Your task to perform on an android device: open a new tab in the chrome app Image 0: 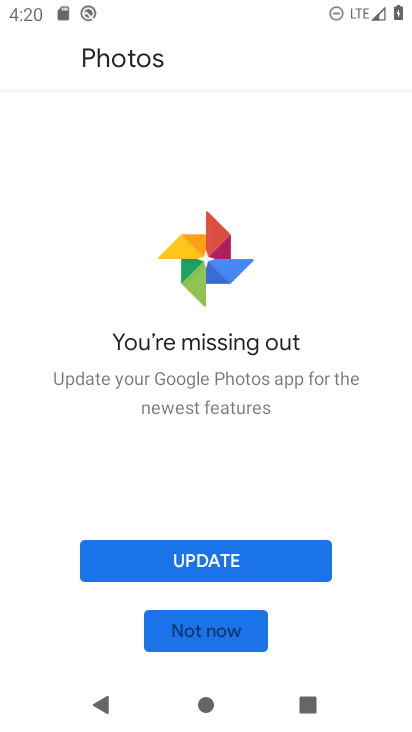
Step 0: press home button
Your task to perform on an android device: open a new tab in the chrome app Image 1: 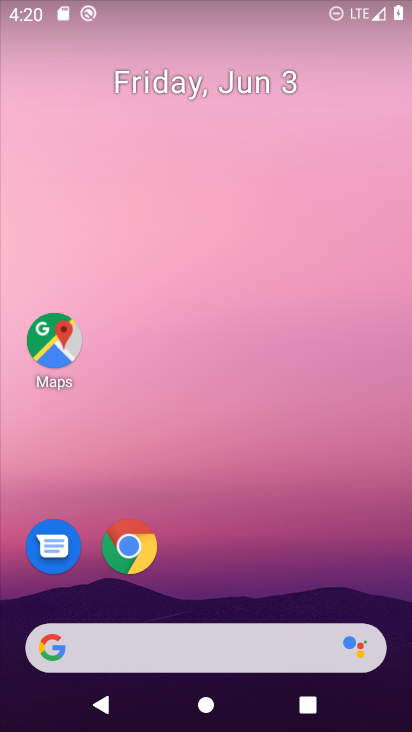
Step 1: click (140, 533)
Your task to perform on an android device: open a new tab in the chrome app Image 2: 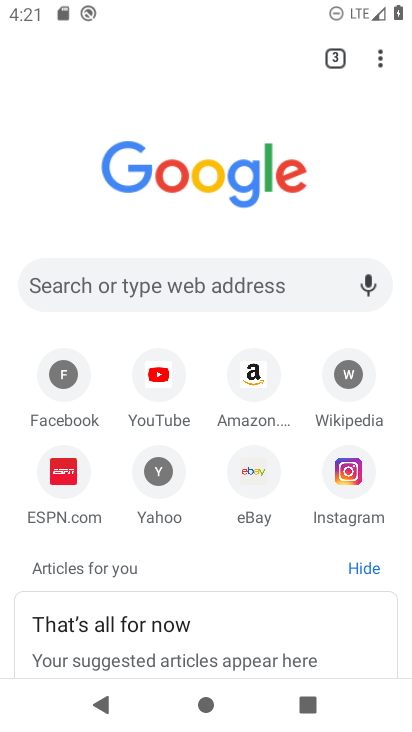
Step 2: click (380, 60)
Your task to perform on an android device: open a new tab in the chrome app Image 3: 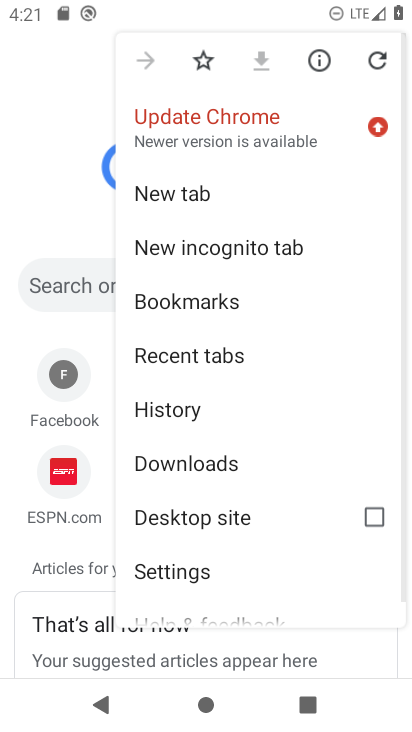
Step 3: click (261, 194)
Your task to perform on an android device: open a new tab in the chrome app Image 4: 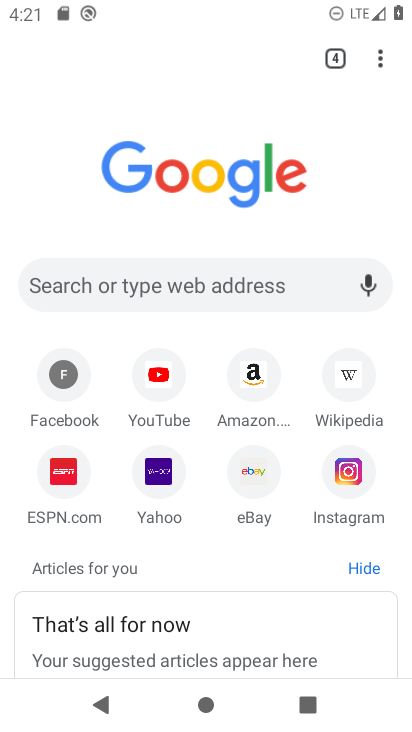
Step 4: task complete